Your task to perform on an android device: show emergency info Image 0: 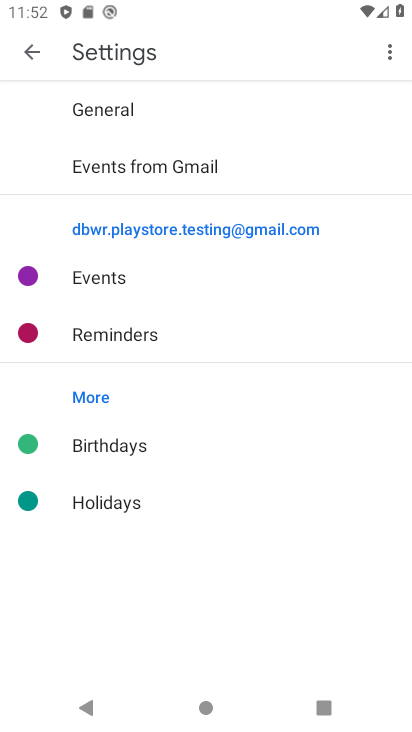
Step 0: press home button
Your task to perform on an android device: show emergency info Image 1: 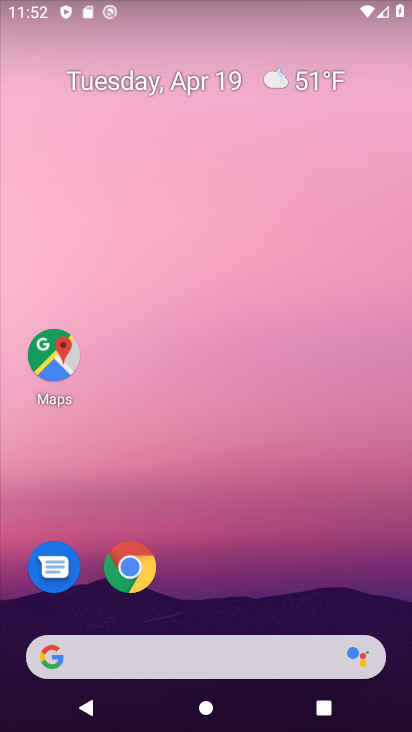
Step 1: drag from (220, 563) to (344, 16)
Your task to perform on an android device: show emergency info Image 2: 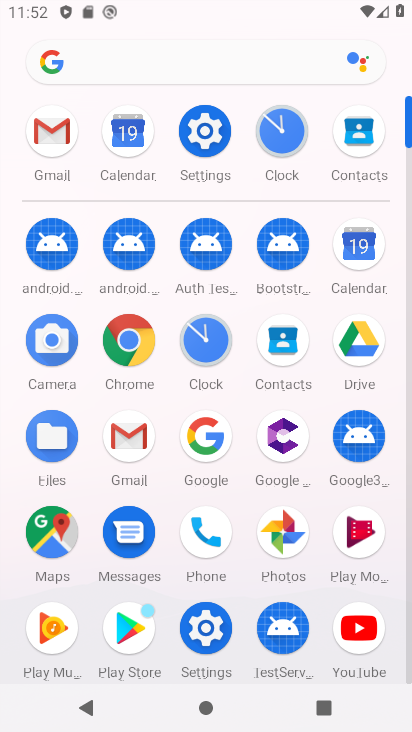
Step 2: click (197, 143)
Your task to perform on an android device: show emergency info Image 3: 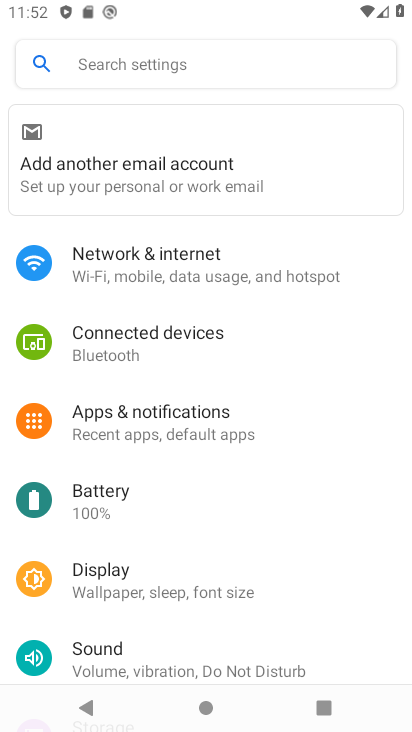
Step 3: drag from (152, 619) to (230, 161)
Your task to perform on an android device: show emergency info Image 4: 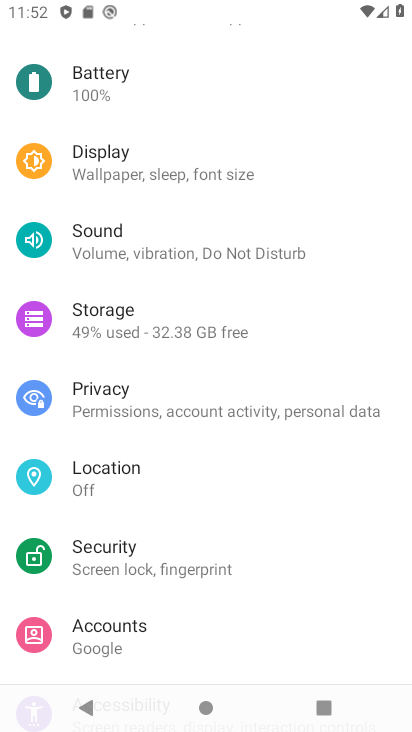
Step 4: drag from (197, 569) to (318, 61)
Your task to perform on an android device: show emergency info Image 5: 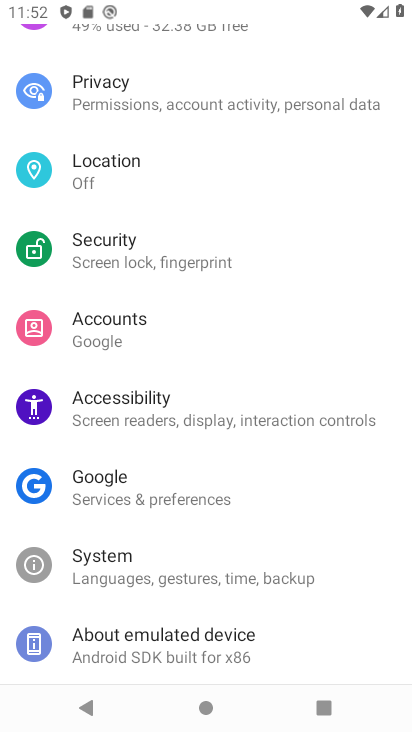
Step 5: click (139, 636)
Your task to perform on an android device: show emergency info Image 6: 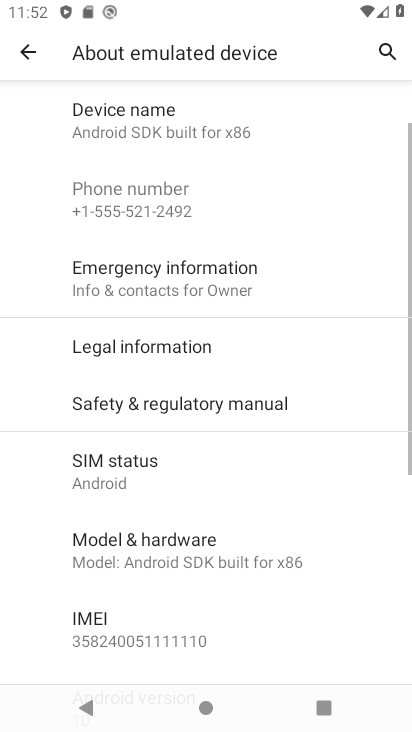
Step 6: click (171, 277)
Your task to perform on an android device: show emergency info Image 7: 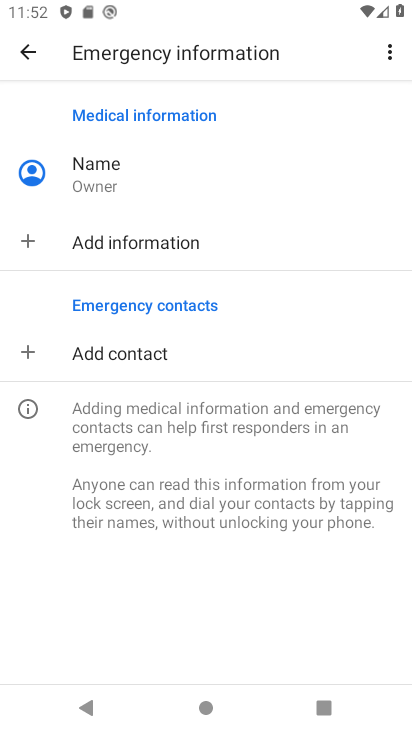
Step 7: task complete